Your task to perform on an android device: check storage Image 0: 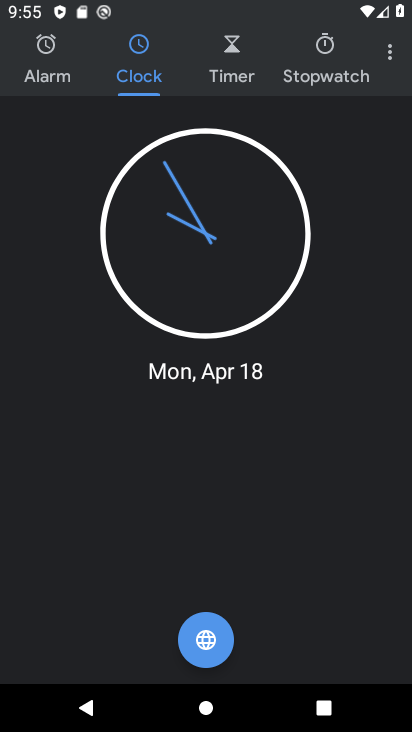
Step 0: press home button
Your task to perform on an android device: check storage Image 1: 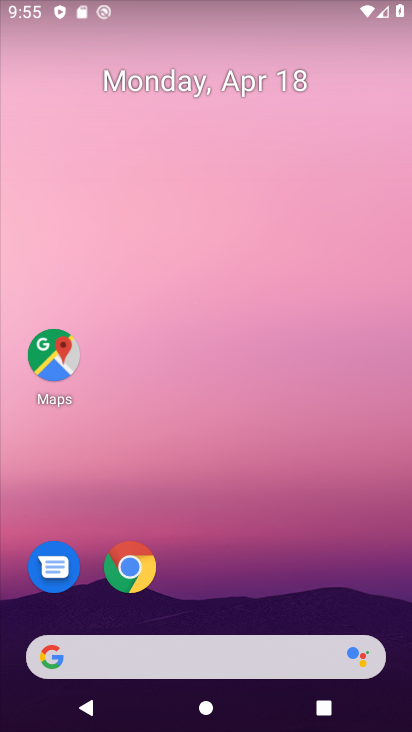
Step 1: drag from (220, 593) to (253, 63)
Your task to perform on an android device: check storage Image 2: 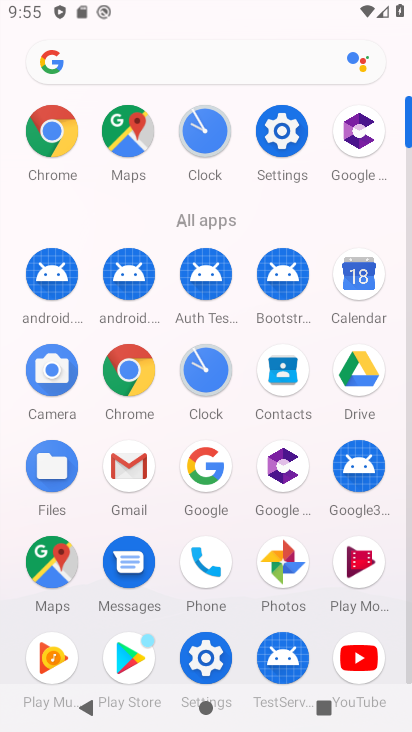
Step 2: click (287, 150)
Your task to perform on an android device: check storage Image 3: 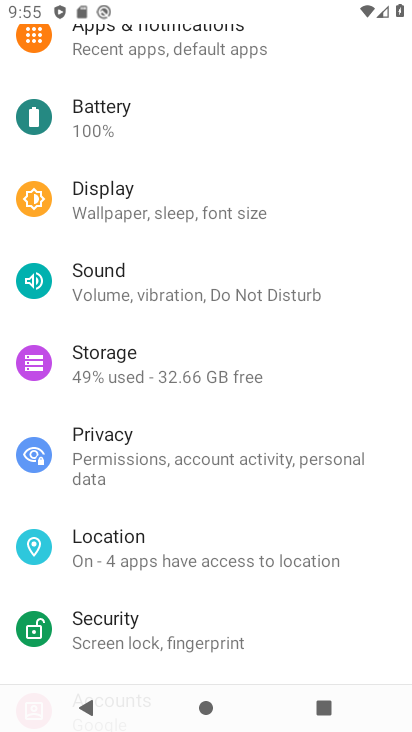
Step 3: click (104, 362)
Your task to perform on an android device: check storage Image 4: 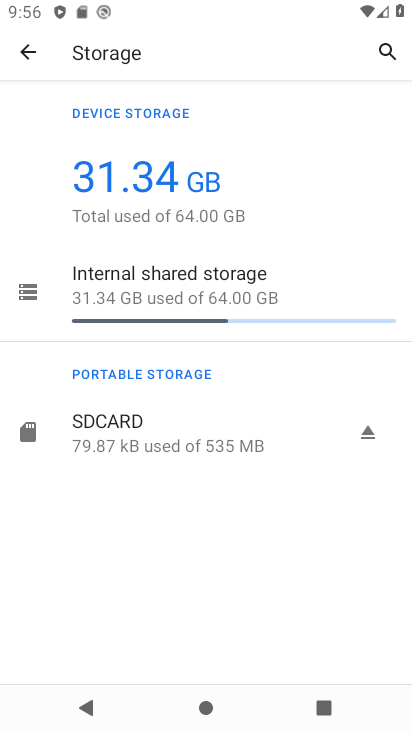
Step 4: task complete